Your task to perform on an android device: Show me recent news Image 0: 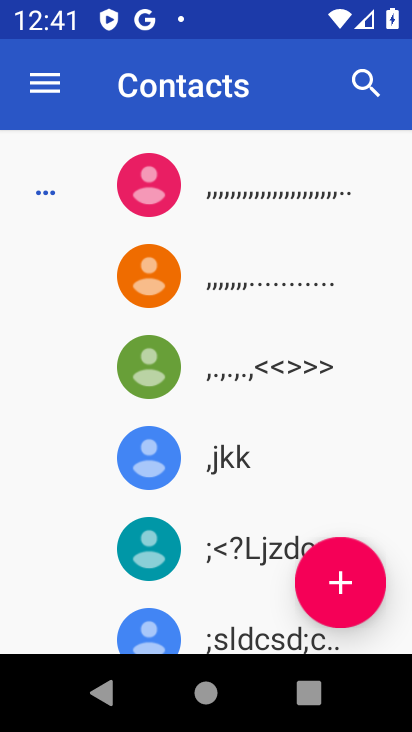
Step 0: press home button
Your task to perform on an android device: Show me recent news Image 1: 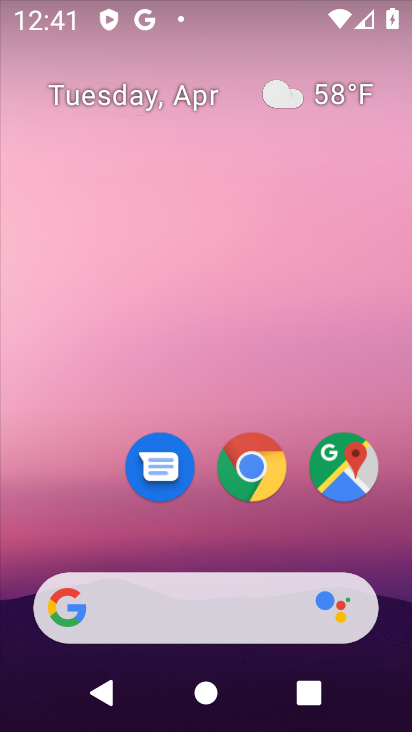
Step 1: click (202, 600)
Your task to perform on an android device: Show me recent news Image 2: 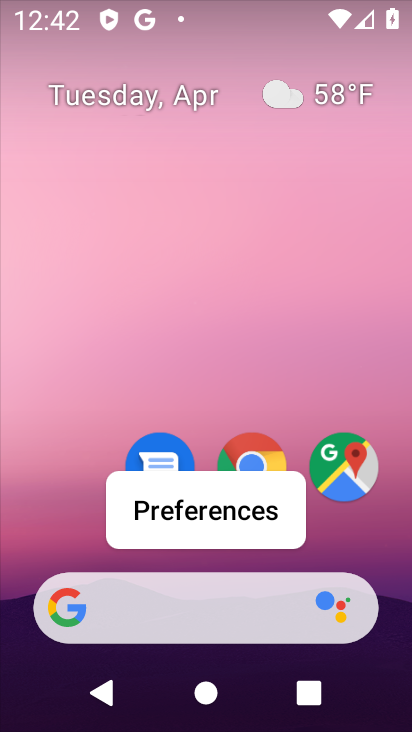
Step 2: click (222, 605)
Your task to perform on an android device: Show me recent news Image 3: 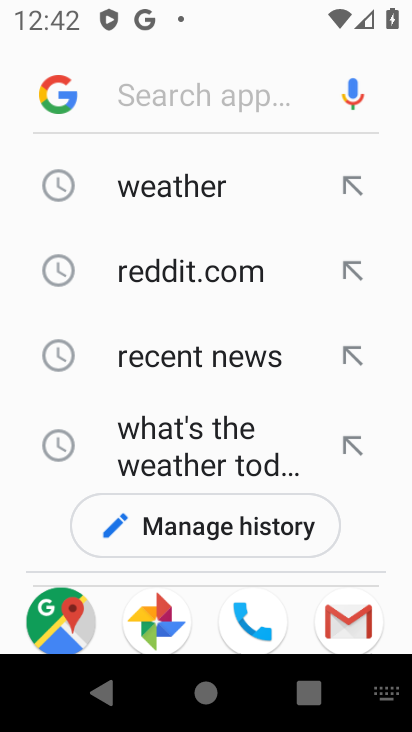
Step 3: click (68, 108)
Your task to perform on an android device: Show me recent news Image 4: 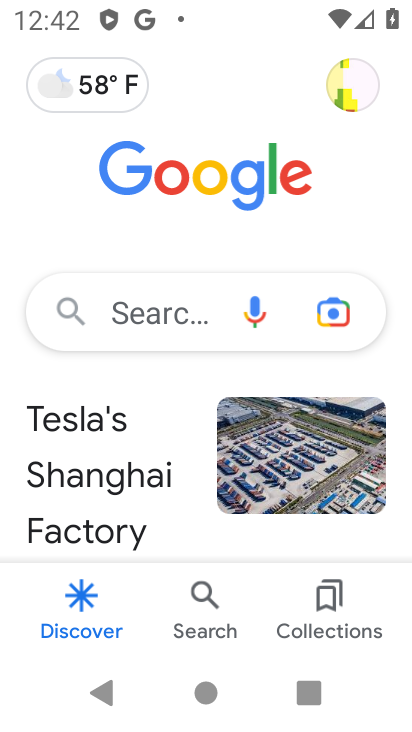
Step 4: task complete